Your task to perform on an android device: find photos in the google photos app Image 0: 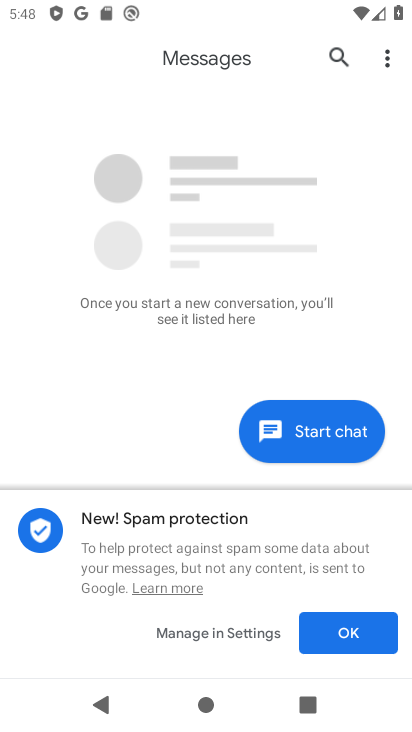
Step 0: press back button
Your task to perform on an android device: find photos in the google photos app Image 1: 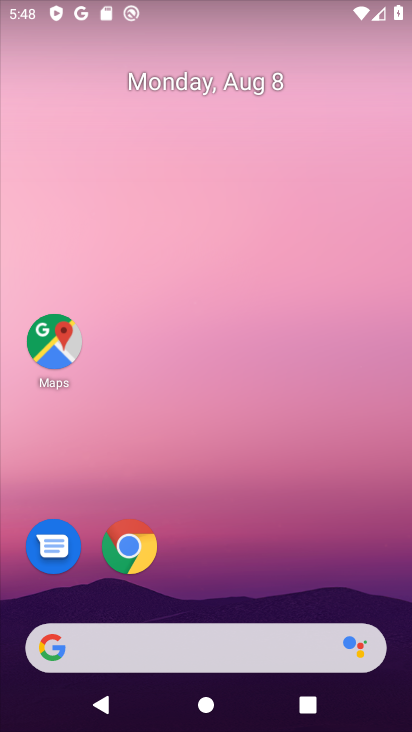
Step 1: drag from (222, 536) to (217, 123)
Your task to perform on an android device: find photos in the google photos app Image 2: 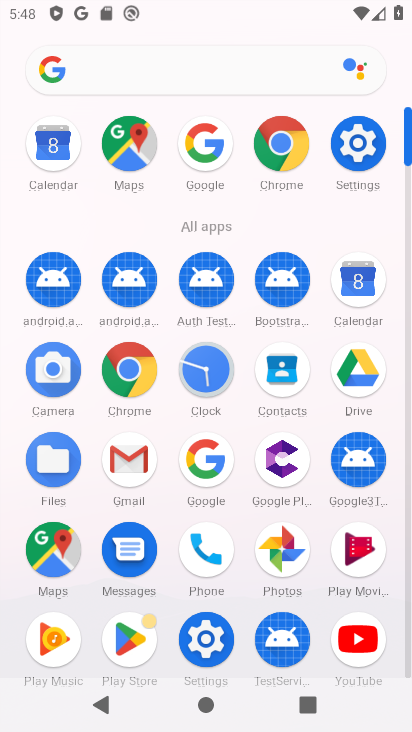
Step 2: click (290, 554)
Your task to perform on an android device: find photos in the google photos app Image 3: 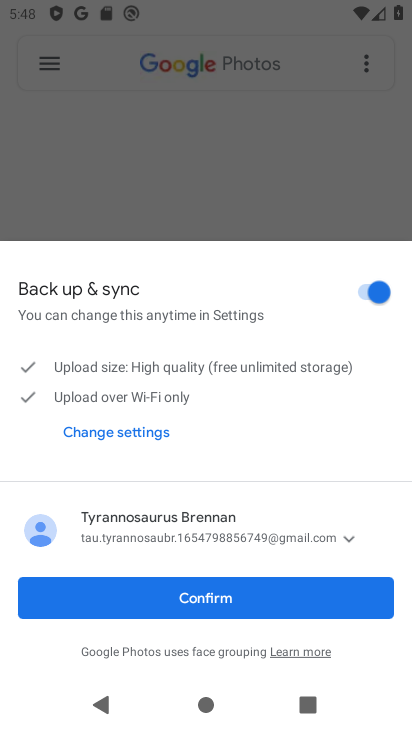
Step 3: click (179, 594)
Your task to perform on an android device: find photos in the google photos app Image 4: 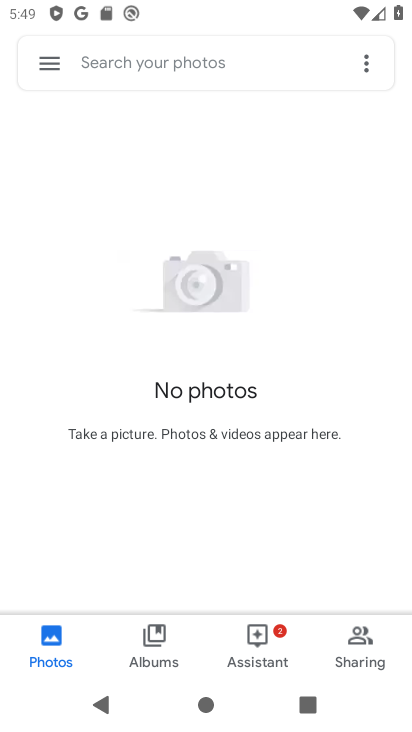
Step 4: click (208, 69)
Your task to perform on an android device: find photos in the google photos app Image 5: 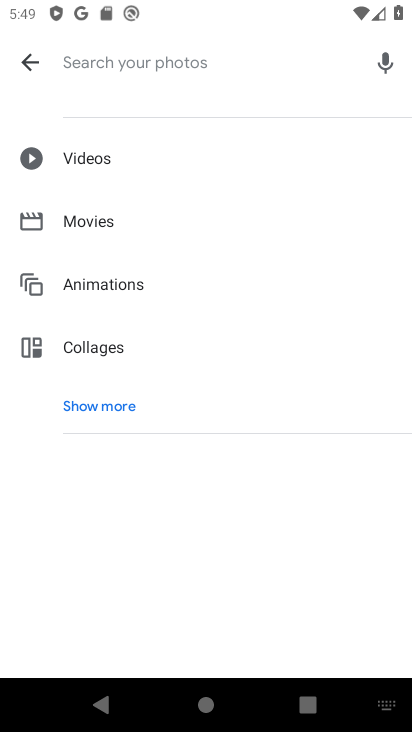
Step 5: type "aa"
Your task to perform on an android device: find photos in the google photos app Image 6: 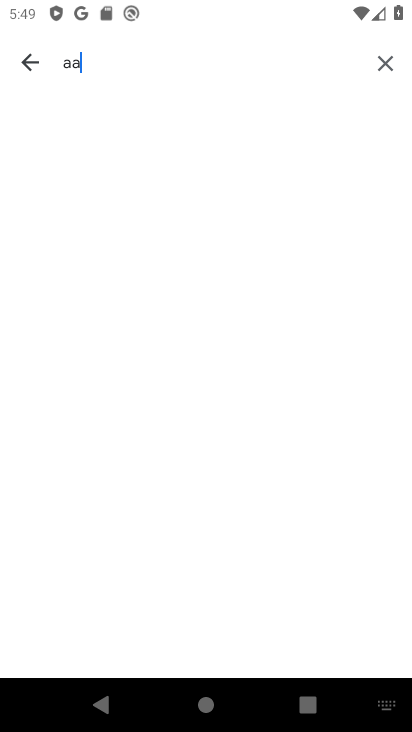
Step 6: type ""
Your task to perform on an android device: find photos in the google photos app Image 7: 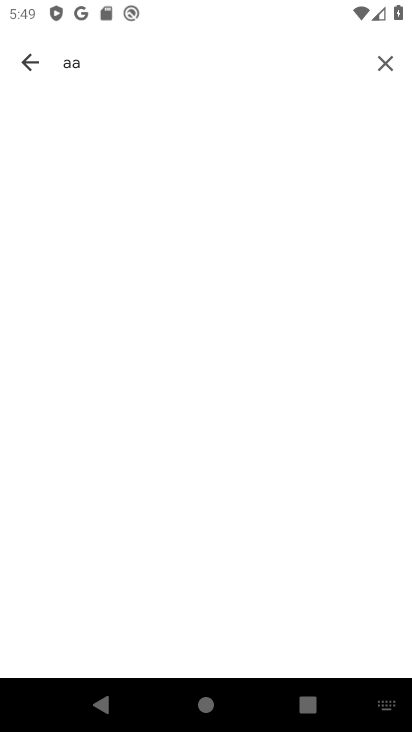
Step 7: task complete